Your task to perform on an android device: Go to sound settings Image 0: 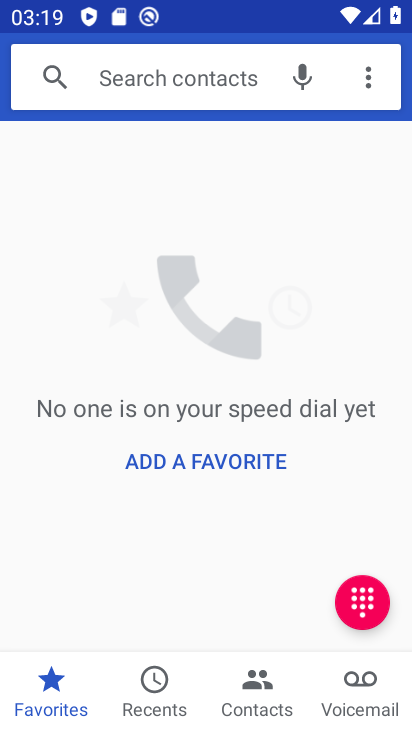
Step 0: press home button
Your task to perform on an android device: Go to sound settings Image 1: 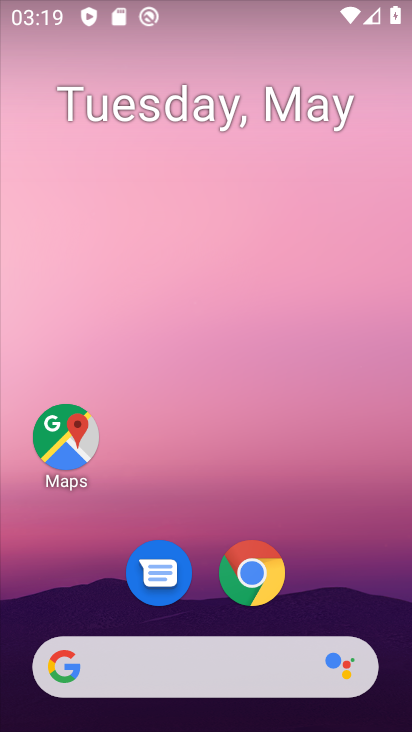
Step 1: drag from (216, 613) to (290, 16)
Your task to perform on an android device: Go to sound settings Image 2: 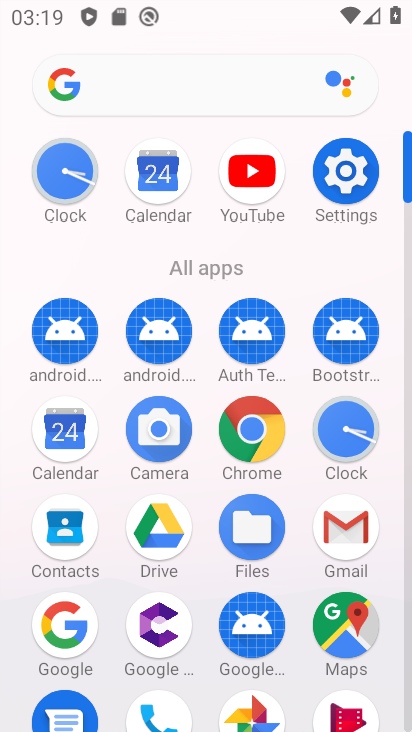
Step 2: click (343, 173)
Your task to perform on an android device: Go to sound settings Image 3: 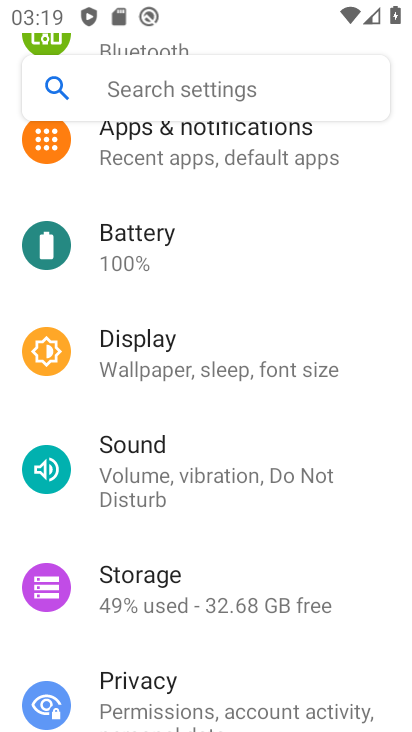
Step 3: click (134, 492)
Your task to perform on an android device: Go to sound settings Image 4: 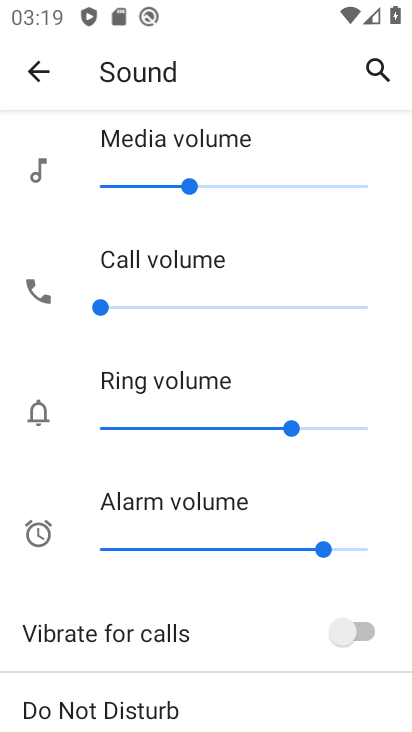
Step 4: task complete